Your task to perform on an android device: open app "DoorDash - Dasher" (install if not already installed) Image 0: 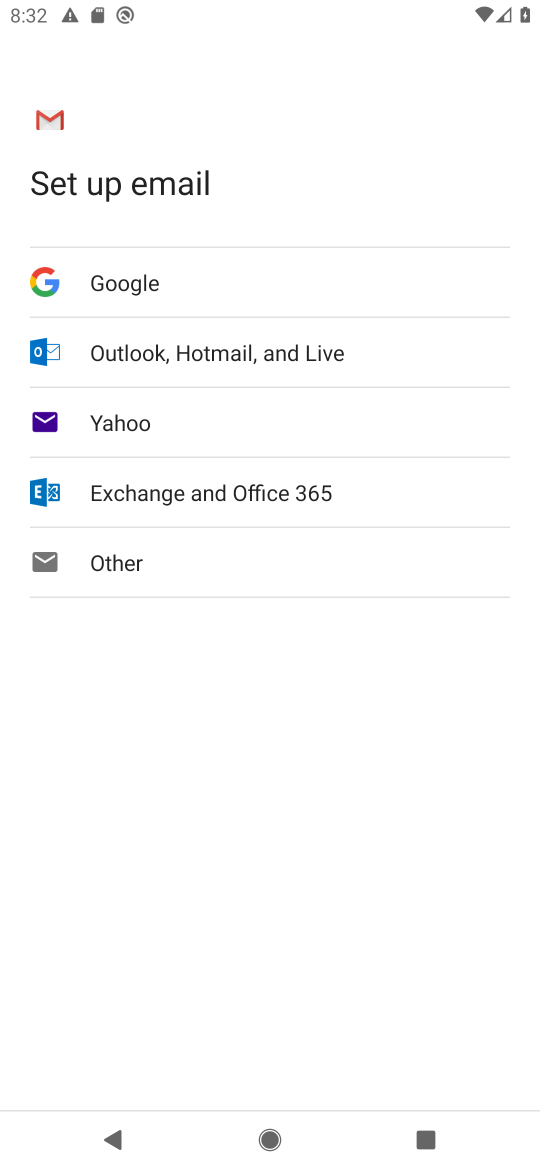
Step 0: press home button
Your task to perform on an android device: open app "DoorDash - Dasher" (install if not already installed) Image 1: 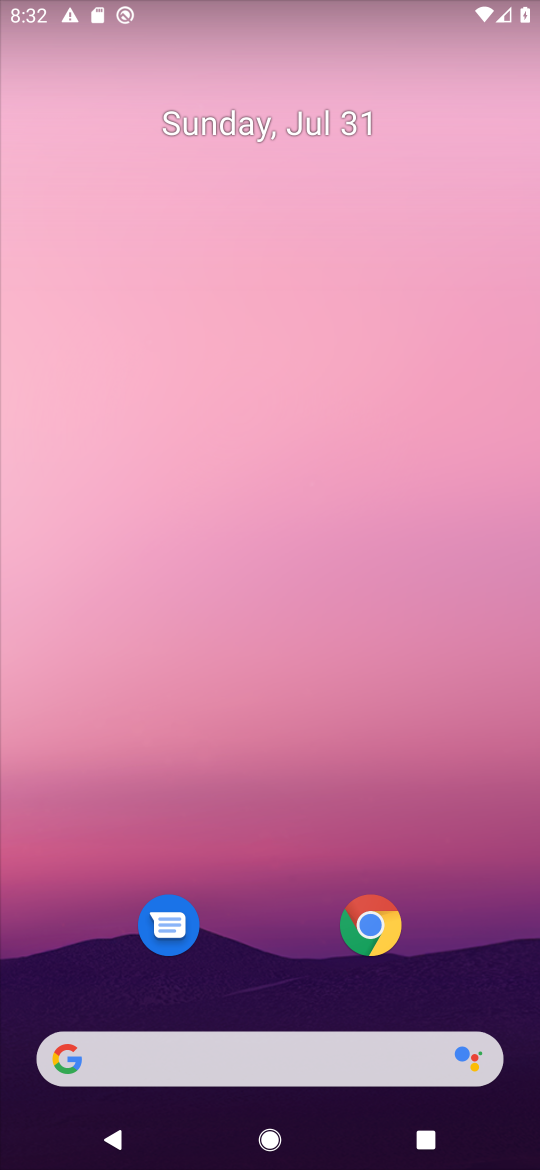
Step 1: drag from (251, 929) to (222, 76)
Your task to perform on an android device: open app "DoorDash - Dasher" (install if not already installed) Image 2: 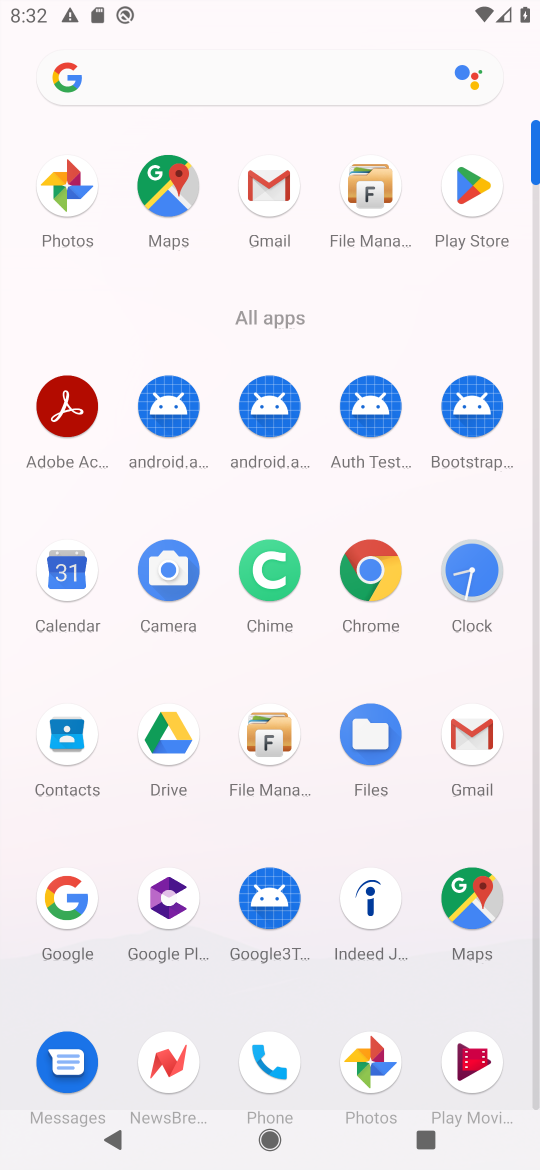
Step 2: click (476, 194)
Your task to perform on an android device: open app "DoorDash - Dasher" (install if not already installed) Image 3: 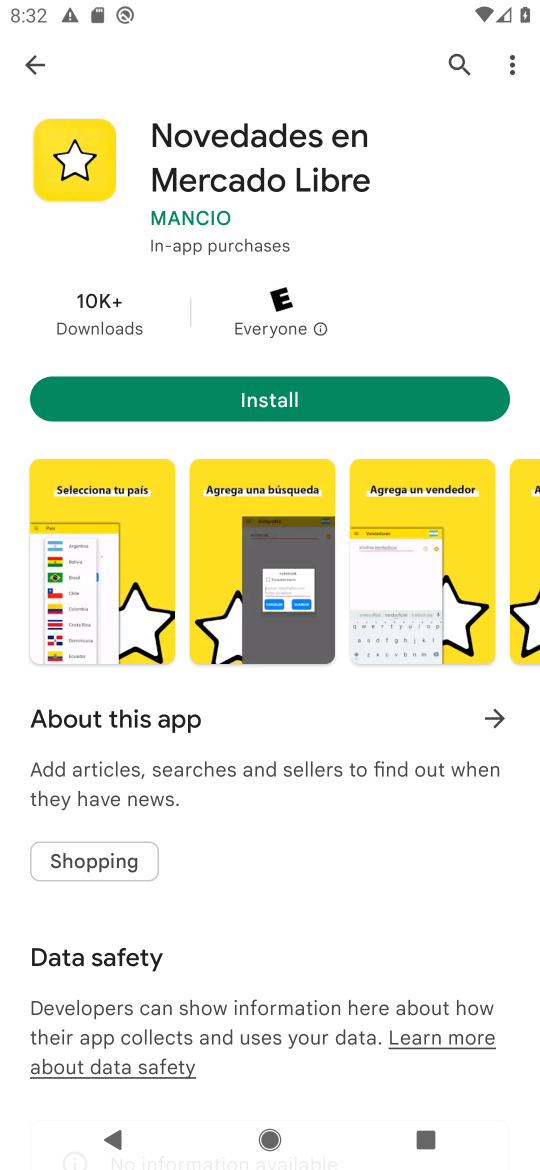
Step 3: click (459, 63)
Your task to perform on an android device: open app "DoorDash - Dasher" (install if not already installed) Image 4: 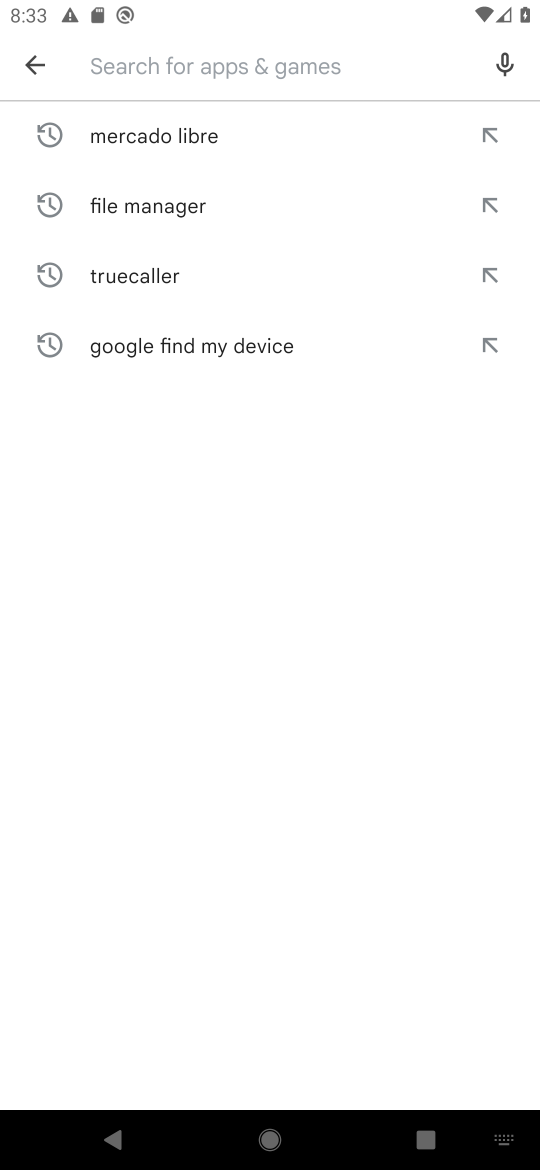
Step 4: type "doordash - dasher"
Your task to perform on an android device: open app "DoorDash - Dasher" (install if not already installed) Image 5: 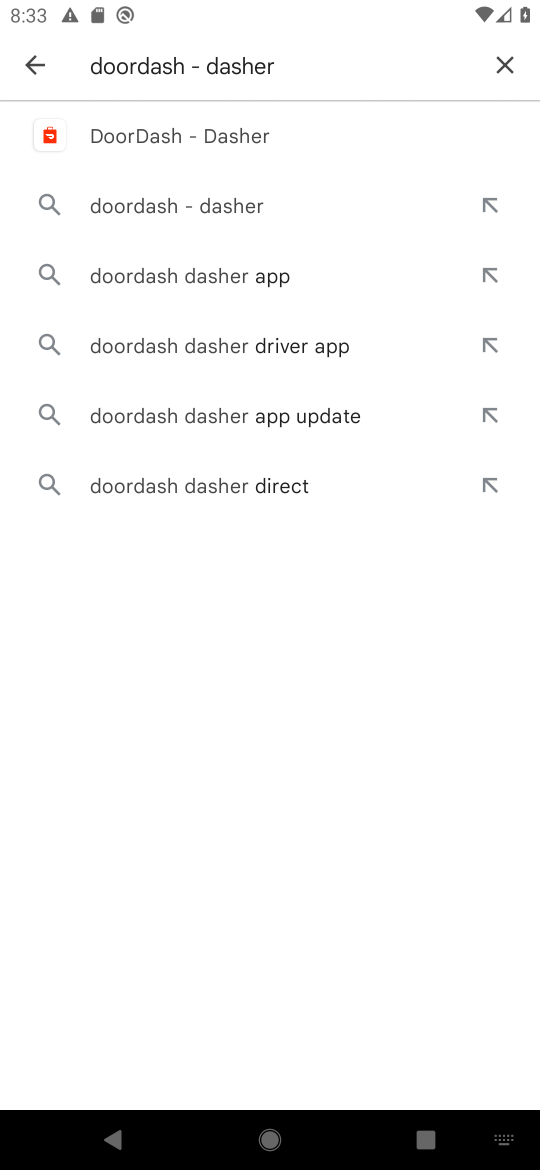
Step 5: click (307, 147)
Your task to perform on an android device: open app "DoorDash - Dasher" (install if not already installed) Image 6: 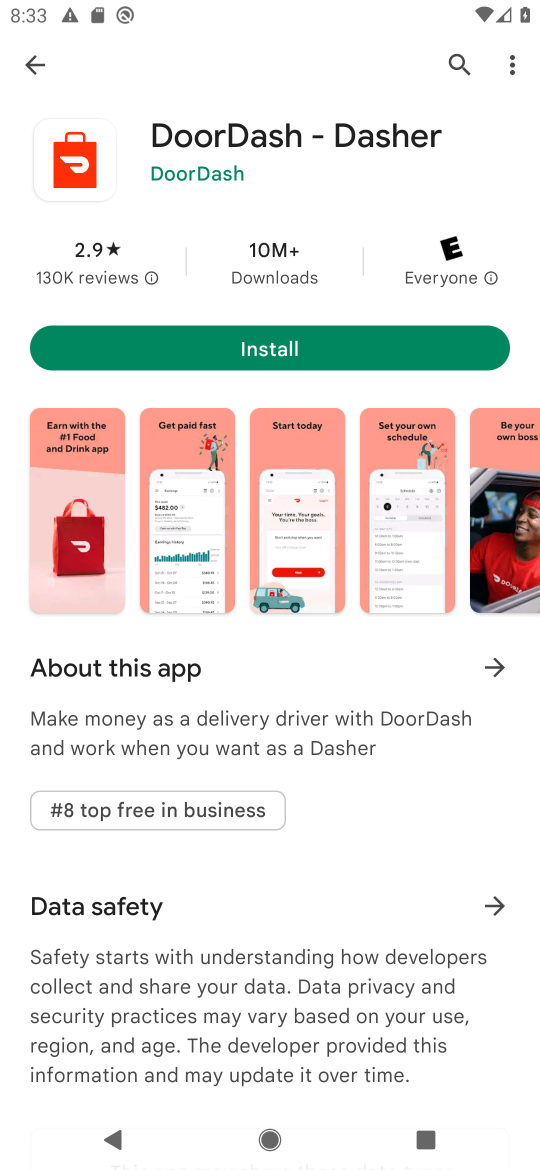
Step 6: click (322, 335)
Your task to perform on an android device: open app "DoorDash - Dasher" (install if not already installed) Image 7: 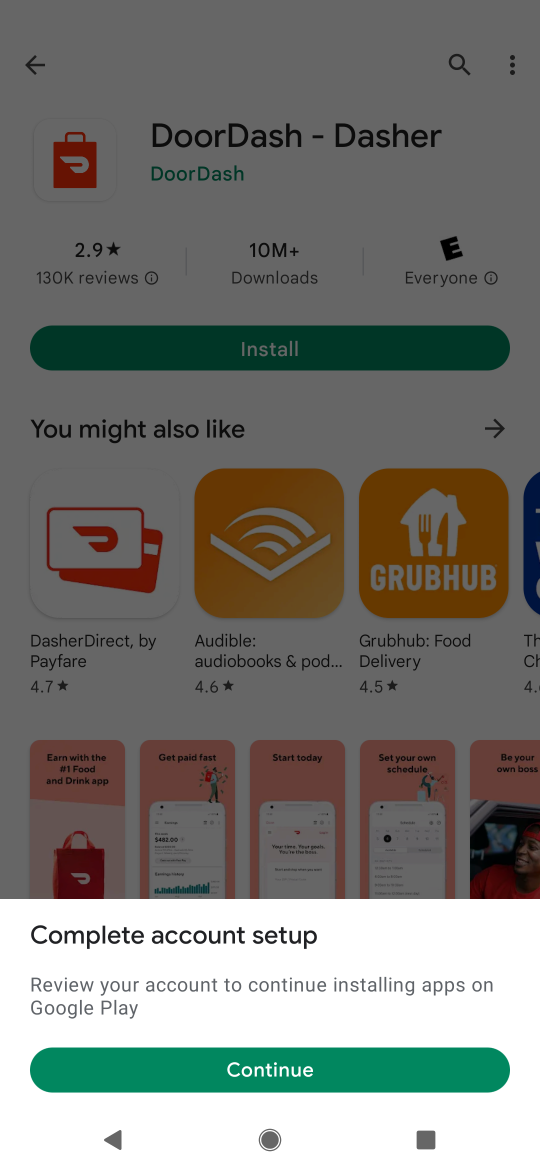
Step 7: click (242, 1081)
Your task to perform on an android device: open app "DoorDash - Dasher" (install if not already installed) Image 8: 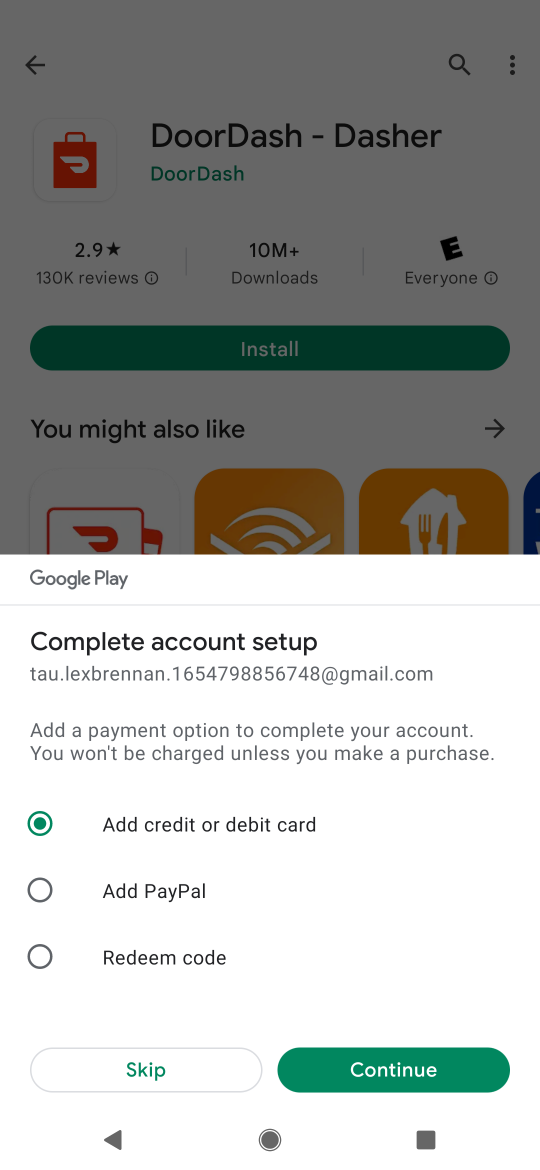
Step 8: click (93, 1068)
Your task to perform on an android device: open app "DoorDash - Dasher" (install if not already installed) Image 9: 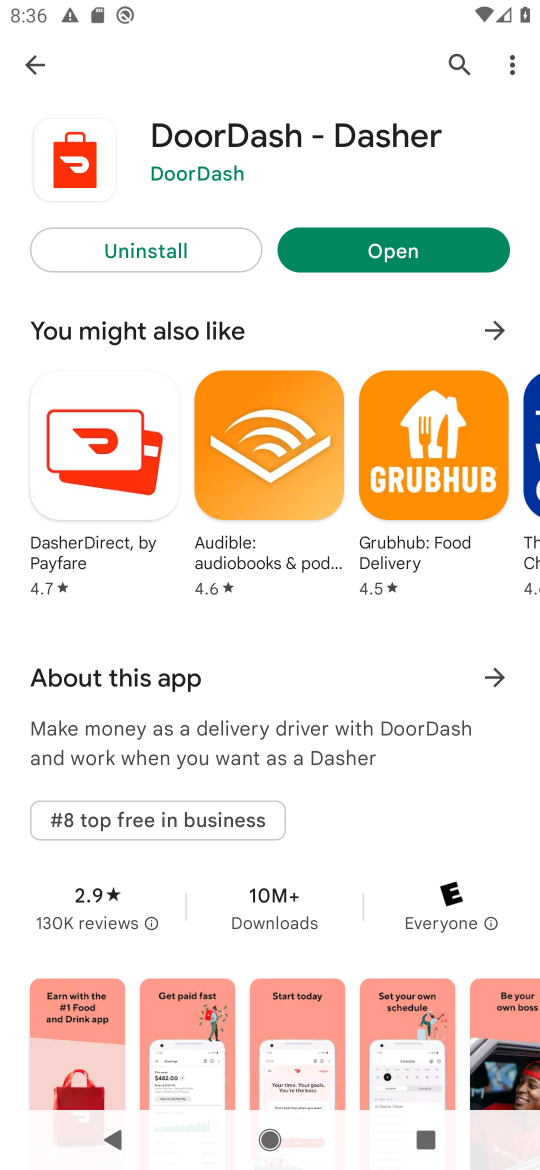
Step 9: click (438, 255)
Your task to perform on an android device: open app "DoorDash - Dasher" (install if not already installed) Image 10: 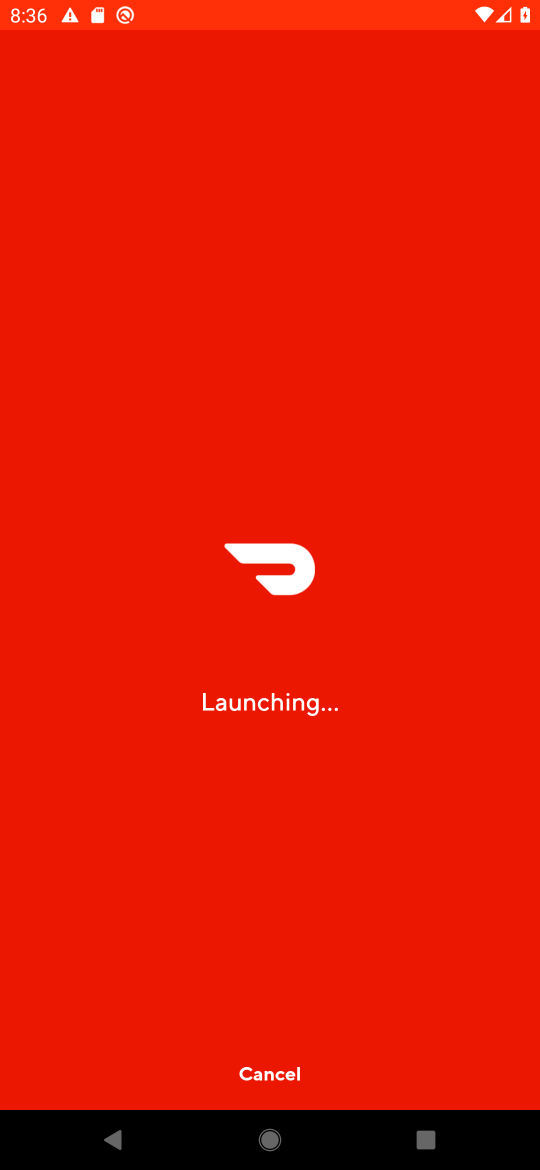
Step 10: task complete